Your task to perform on an android device: allow notifications from all sites in the chrome app Image 0: 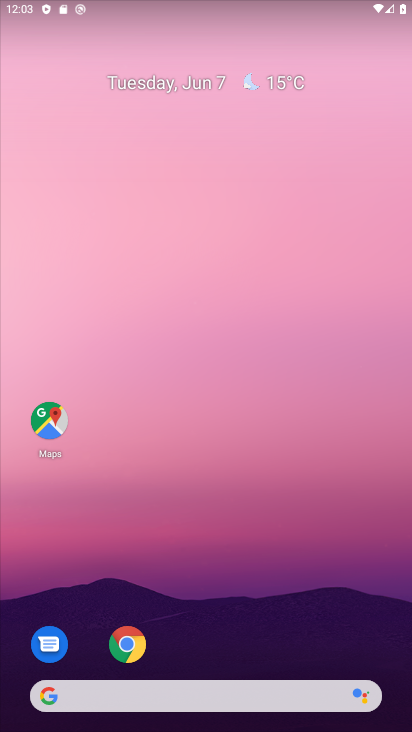
Step 0: drag from (323, 599) to (349, 170)
Your task to perform on an android device: allow notifications from all sites in the chrome app Image 1: 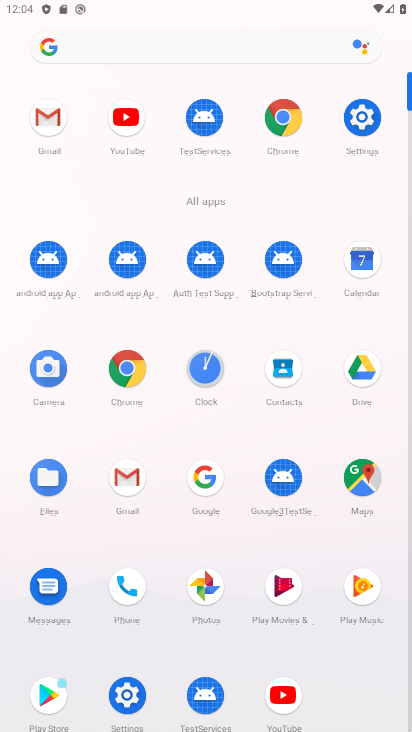
Step 1: click (284, 114)
Your task to perform on an android device: allow notifications from all sites in the chrome app Image 2: 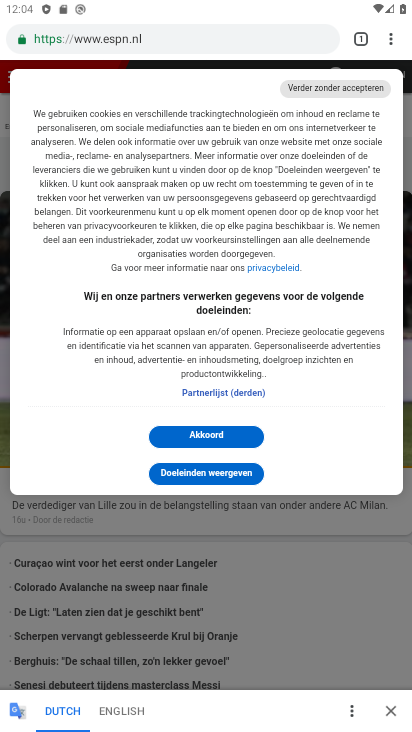
Step 2: click (390, 40)
Your task to perform on an android device: allow notifications from all sites in the chrome app Image 3: 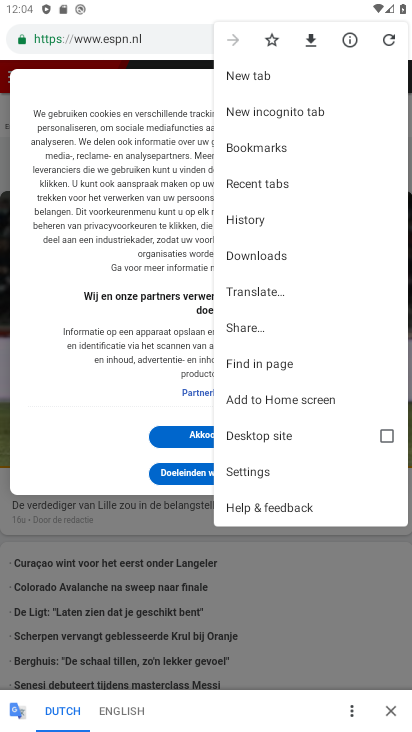
Step 3: click (237, 477)
Your task to perform on an android device: allow notifications from all sites in the chrome app Image 4: 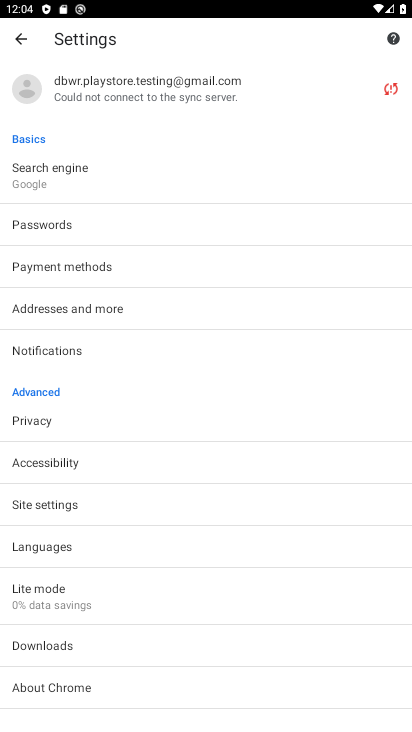
Step 4: click (104, 356)
Your task to perform on an android device: allow notifications from all sites in the chrome app Image 5: 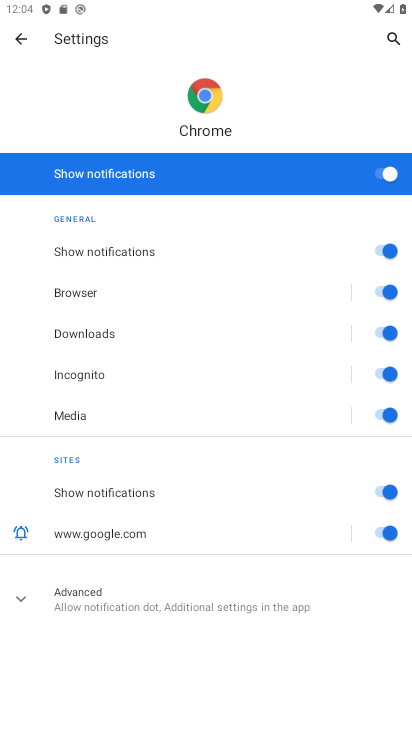
Step 5: click (146, 599)
Your task to perform on an android device: allow notifications from all sites in the chrome app Image 6: 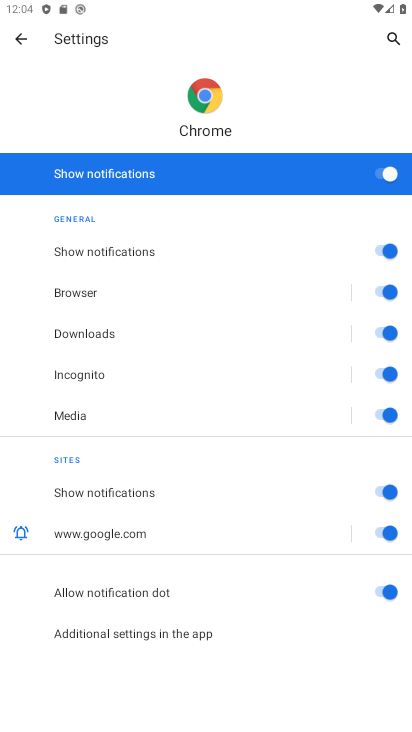
Step 6: task complete